Your task to perform on an android device: Go to notification settings Image 0: 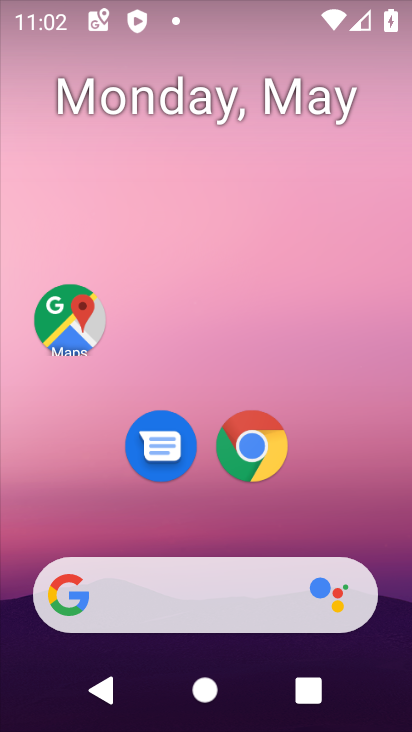
Step 0: drag from (367, 477) to (290, 0)
Your task to perform on an android device: Go to notification settings Image 1: 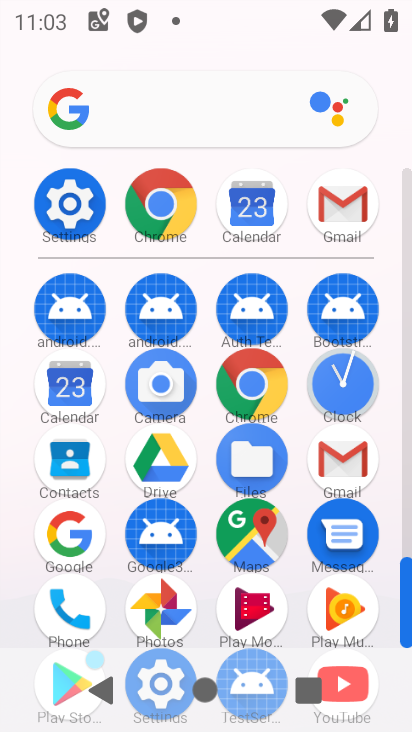
Step 1: click (72, 218)
Your task to perform on an android device: Go to notification settings Image 2: 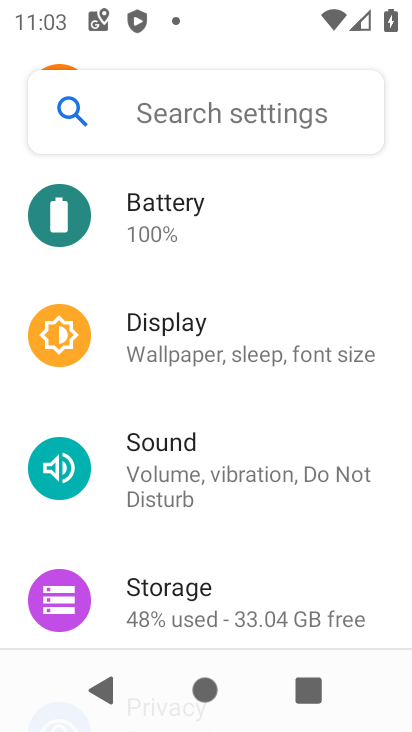
Step 2: drag from (236, 243) to (241, 594)
Your task to perform on an android device: Go to notification settings Image 3: 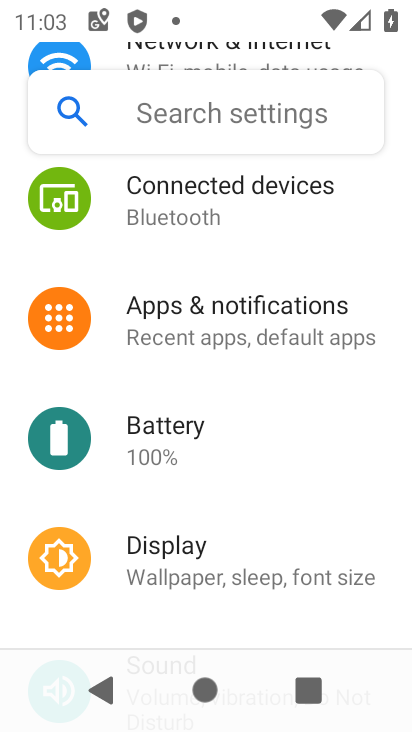
Step 3: click (281, 312)
Your task to perform on an android device: Go to notification settings Image 4: 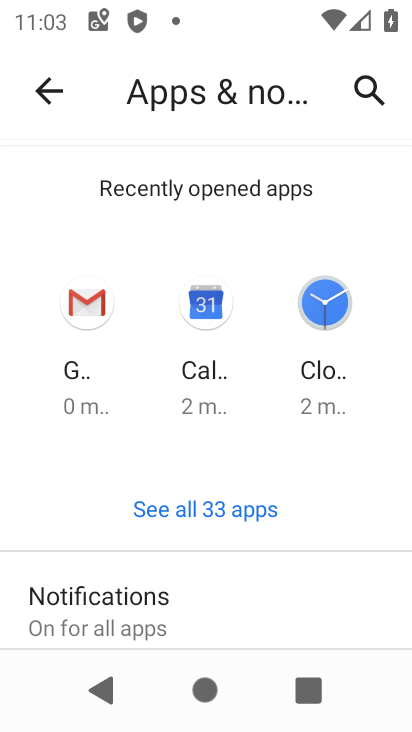
Step 4: drag from (246, 579) to (223, 190)
Your task to perform on an android device: Go to notification settings Image 5: 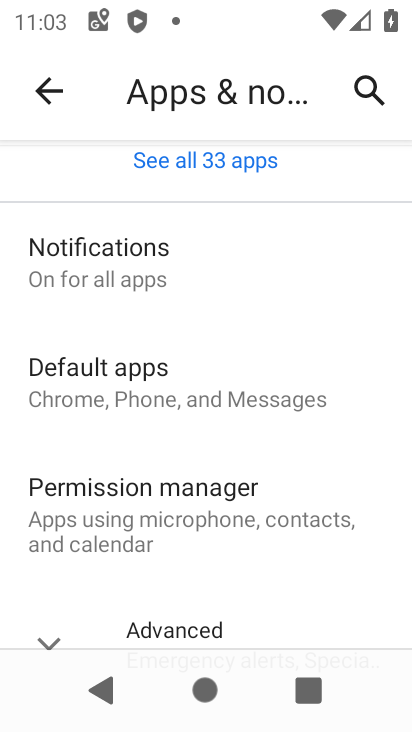
Step 5: click (94, 288)
Your task to perform on an android device: Go to notification settings Image 6: 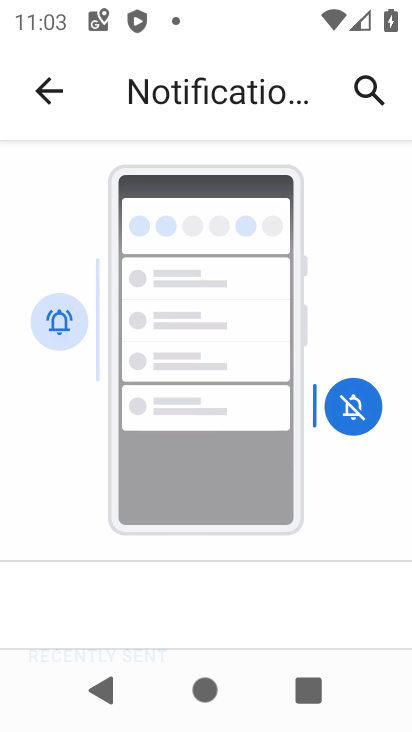
Step 6: task complete